Your task to perform on an android device: choose inbox layout in the gmail app Image 0: 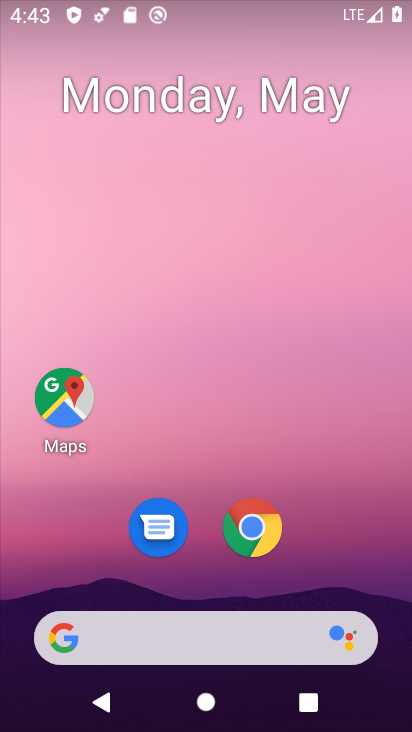
Step 0: drag from (397, 701) to (380, 134)
Your task to perform on an android device: choose inbox layout in the gmail app Image 1: 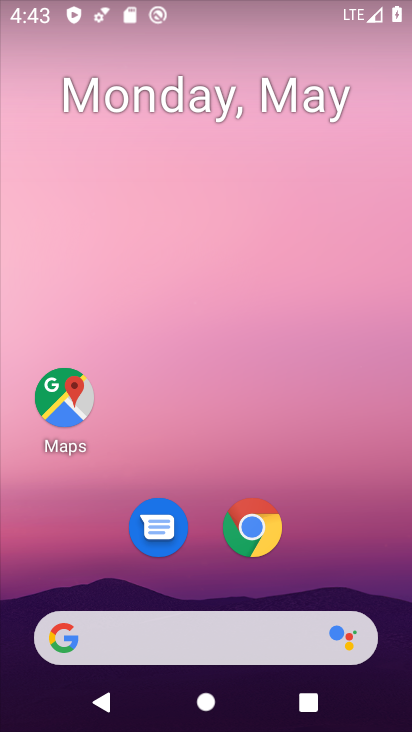
Step 1: drag from (394, 714) to (338, 313)
Your task to perform on an android device: choose inbox layout in the gmail app Image 2: 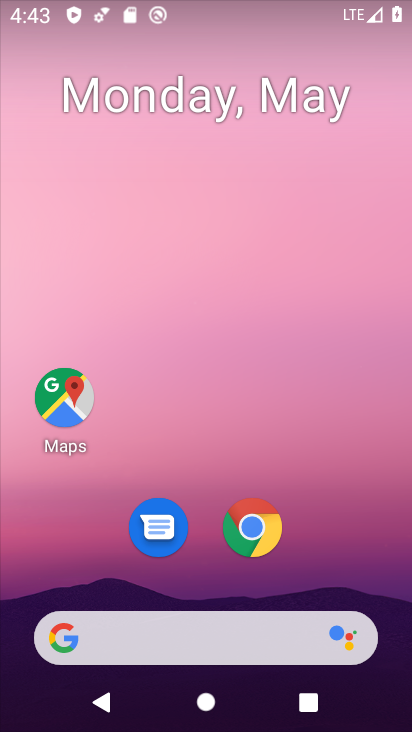
Step 2: drag from (385, 694) to (276, 52)
Your task to perform on an android device: choose inbox layout in the gmail app Image 3: 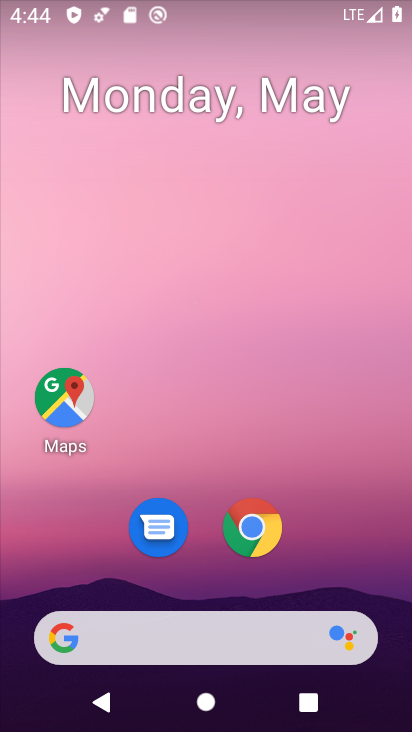
Step 3: drag from (395, 591) to (319, 177)
Your task to perform on an android device: choose inbox layout in the gmail app Image 4: 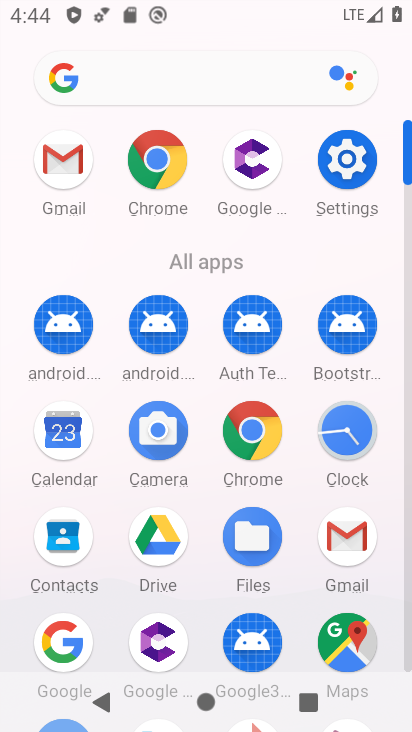
Step 4: click (357, 521)
Your task to perform on an android device: choose inbox layout in the gmail app Image 5: 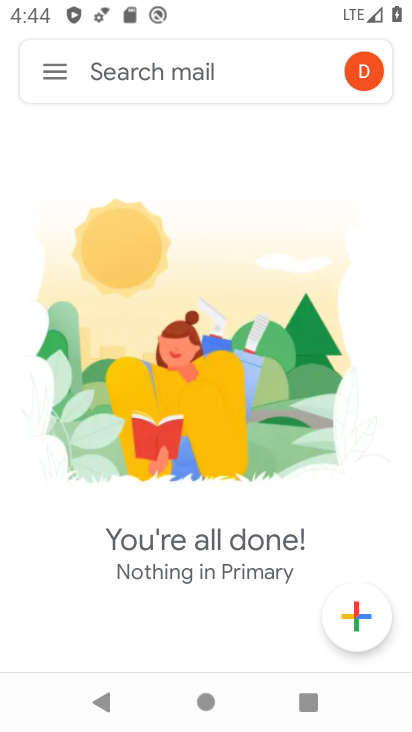
Step 5: click (53, 69)
Your task to perform on an android device: choose inbox layout in the gmail app Image 6: 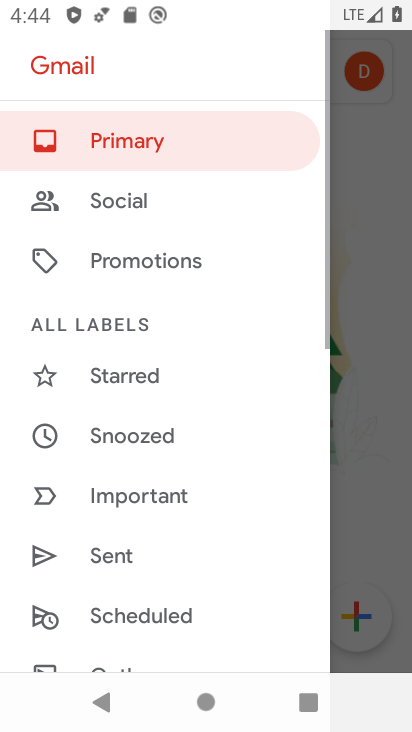
Step 6: click (135, 133)
Your task to perform on an android device: choose inbox layout in the gmail app Image 7: 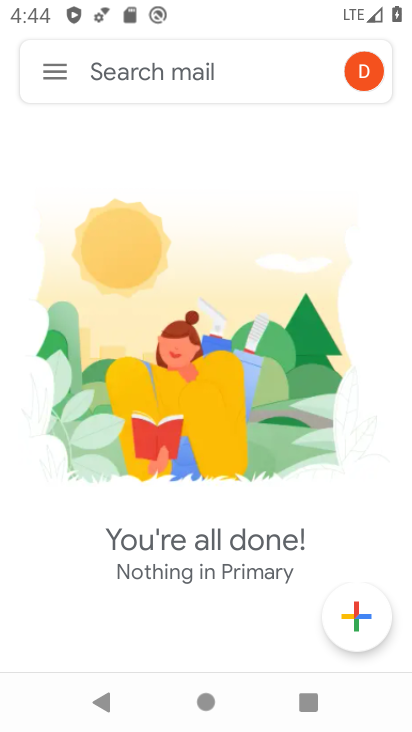
Step 7: task complete